Your task to perform on an android device: Go to Reddit.com Image 0: 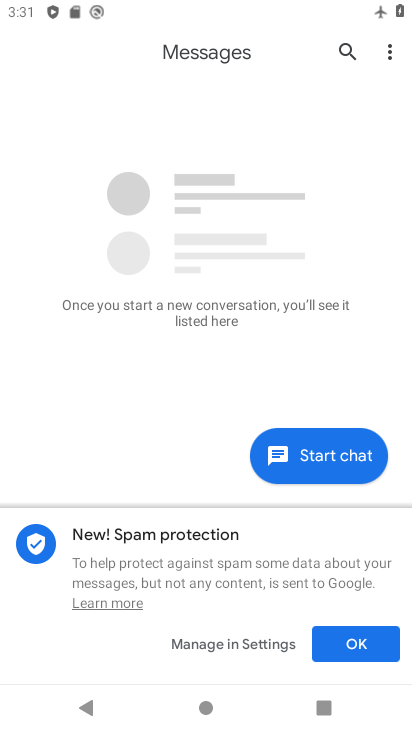
Step 0: press home button
Your task to perform on an android device: Go to Reddit.com Image 1: 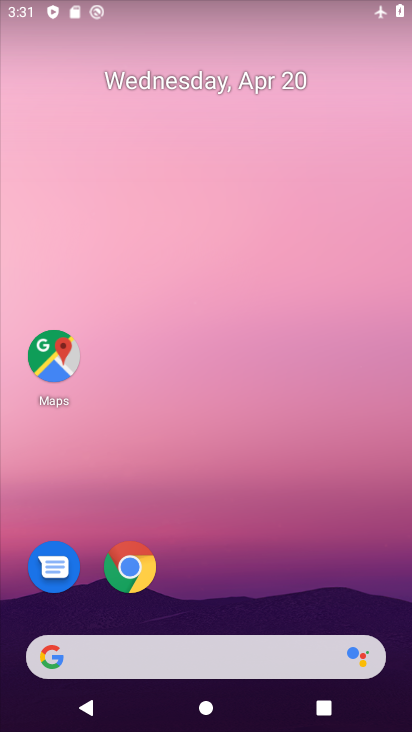
Step 1: drag from (400, 611) to (231, 149)
Your task to perform on an android device: Go to Reddit.com Image 2: 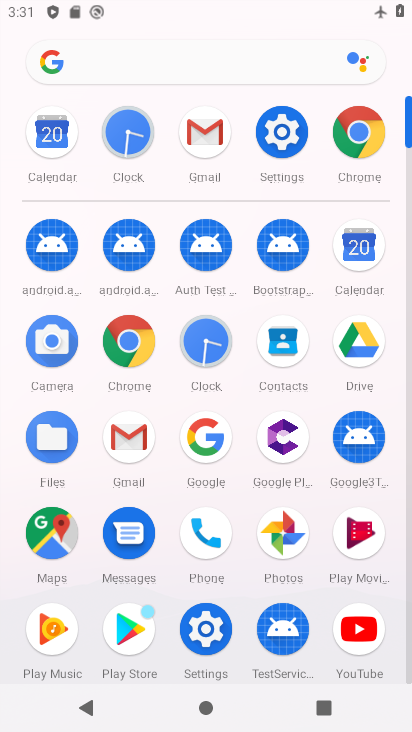
Step 2: click (368, 151)
Your task to perform on an android device: Go to Reddit.com Image 3: 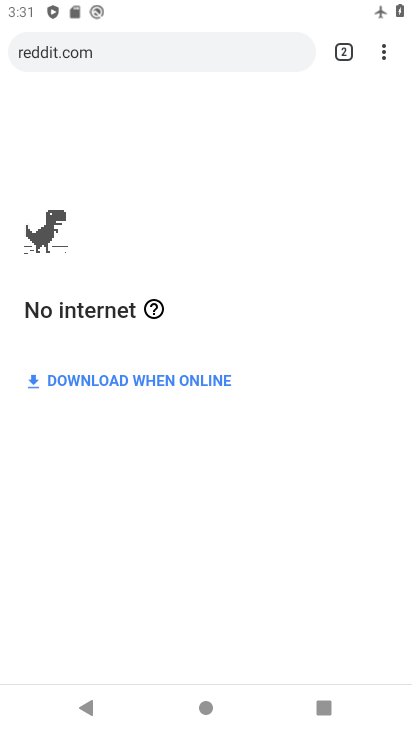
Step 3: task complete